Your task to perform on an android device: Go to CNN.com Image 0: 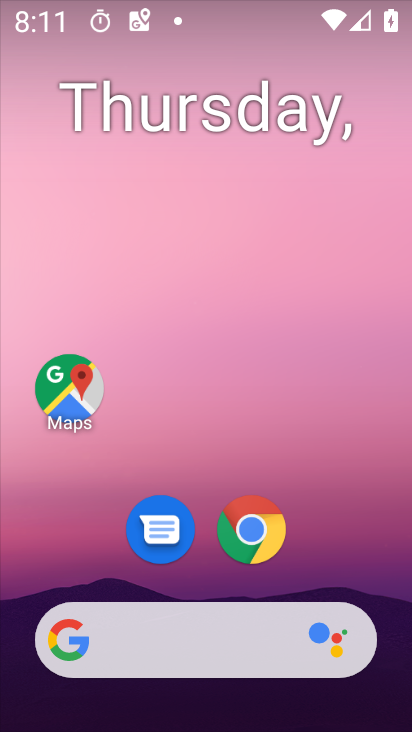
Step 0: click (247, 519)
Your task to perform on an android device: Go to CNN.com Image 1: 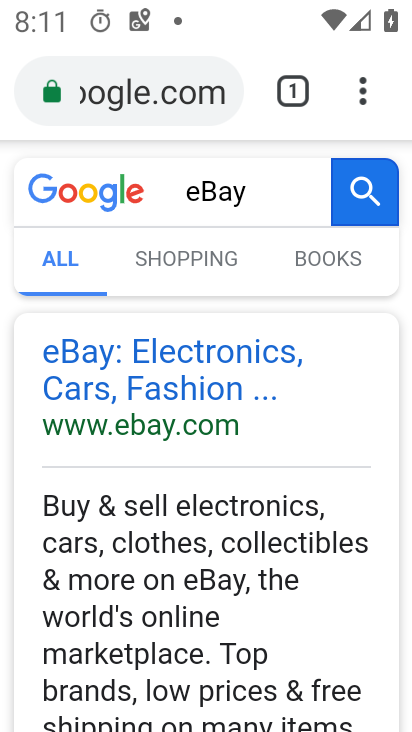
Step 1: click (227, 94)
Your task to perform on an android device: Go to CNN.com Image 2: 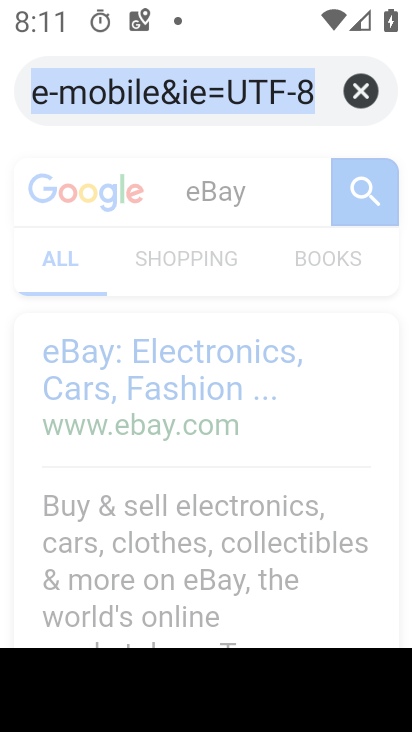
Step 2: click (351, 79)
Your task to perform on an android device: Go to CNN.com Image 3: 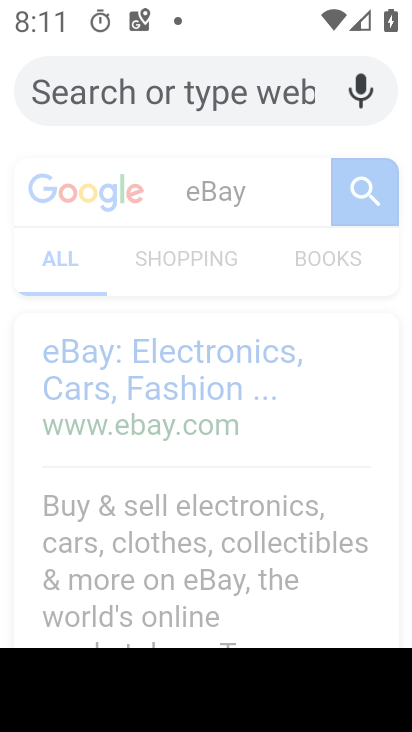
Step 3: type "CNN.com"
Your task to perform on an android device: Go to CNN.com Image 4: 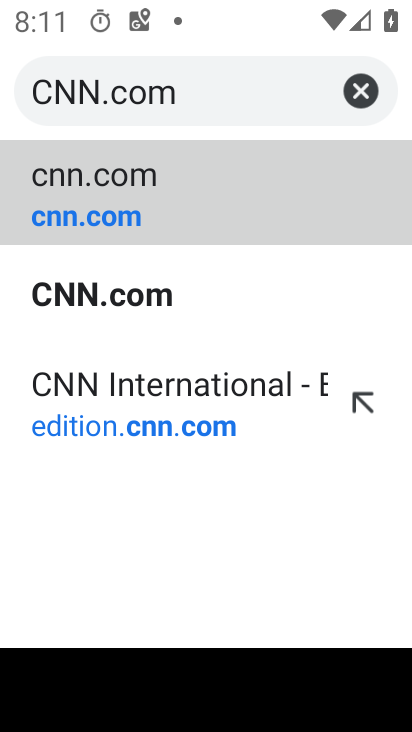
Step 4: click (129, 291)
Your task to perform on an android device: Go to CNN.com Image 5: 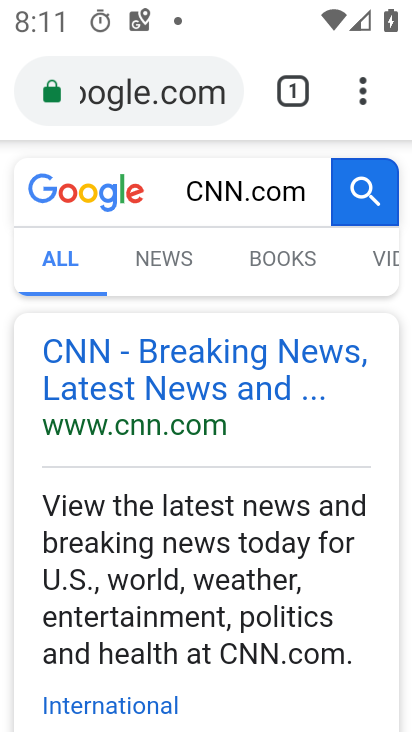
Step 5: task complete